Your task to perform on an android device: turn on the 24-hour format for clock Image 0: 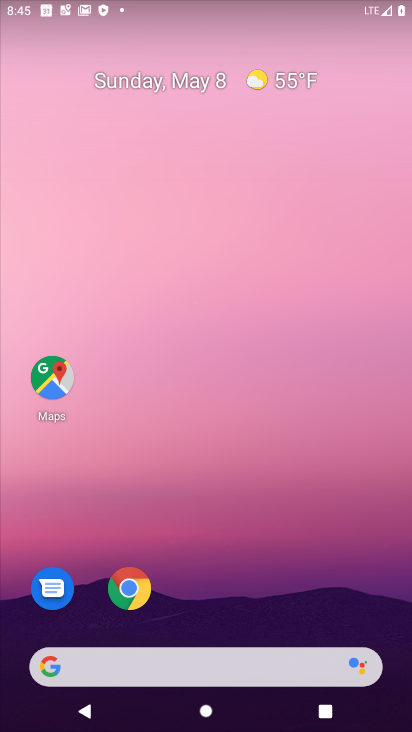
Step 0: drag from (349, 621) to (247, 80)
Your task to perform on an android device: turn on the 24-hour format for clock Image 1: 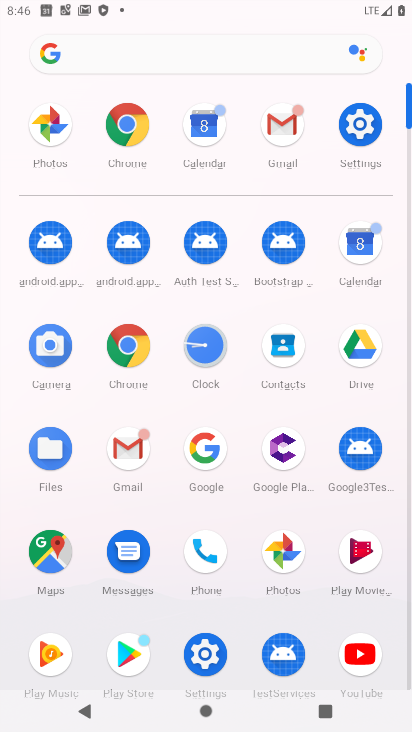
Step 1: click (195, 353)
Your task to perform on an android device: turn on the 24-hour format for clock Image 2: 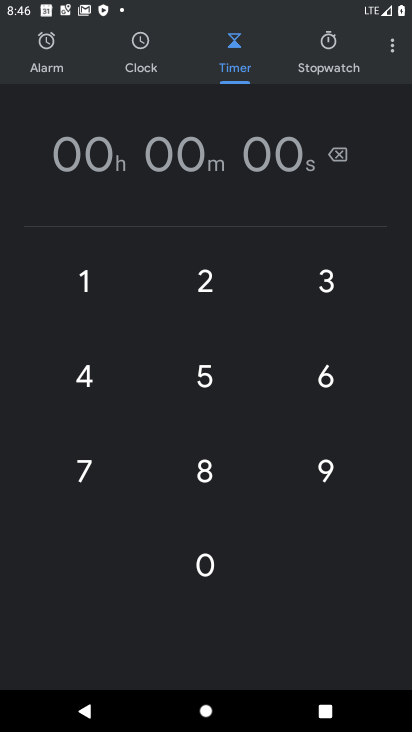
Step 2: click (394, 48)
Your task to perform on an android device: turn on the 24-hour format for clock Image 3: 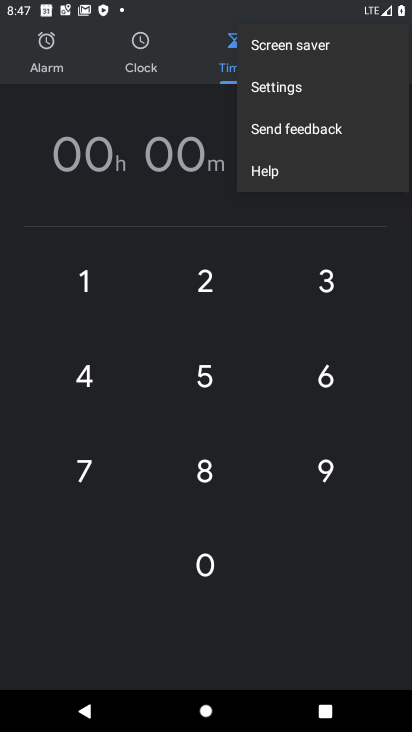
Step 3: click (320, 82)
Your task to perform on an android device: turn on the 24-hour format for clock Image 4: 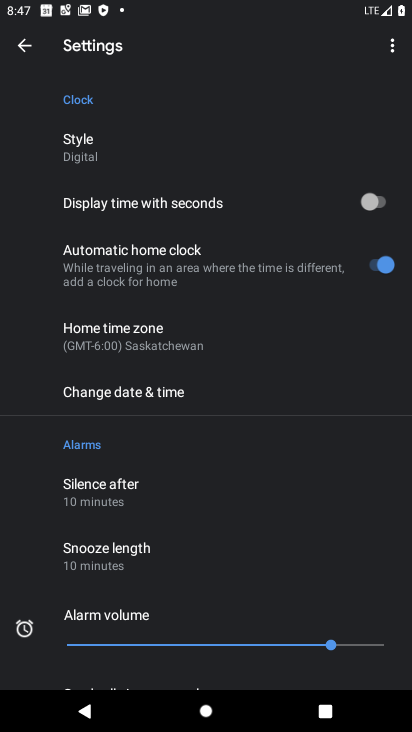
Step 4: click (200, 394)
Your task to perform on an android device: turn on the 24-hour format for clock Image 5: 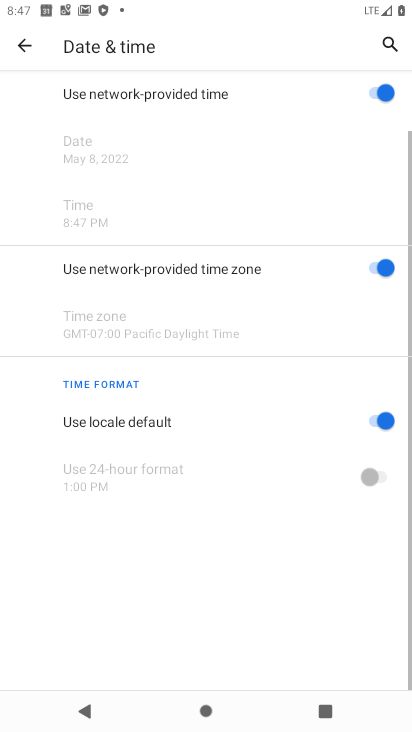
Step 5: task complete